Your task to perform on an android device: Open the stopwatch Image 0: 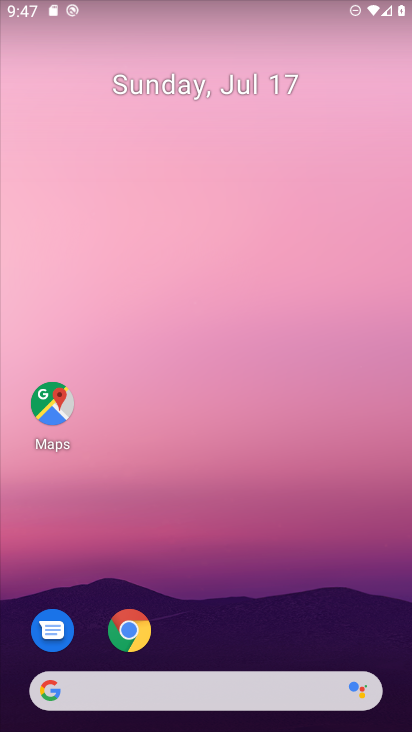
Step 0: drag from (157, 661) to (187, 249)
Your task to perform on an android device: Open the stopwatch Image 1: 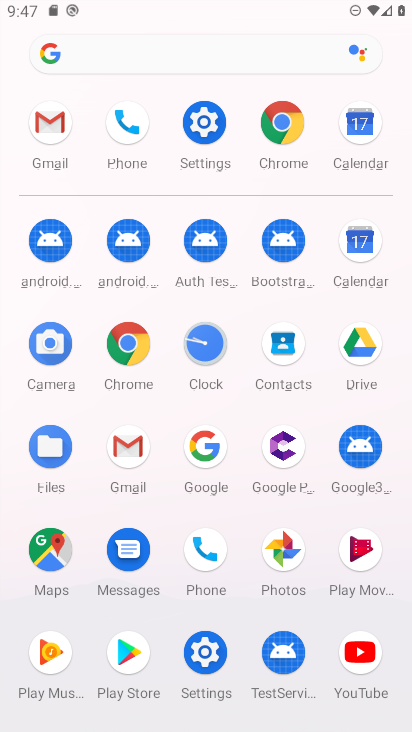
Step 1: click (215, 344)
Your task to perform on an android device: Open the stopwatch Image 2: 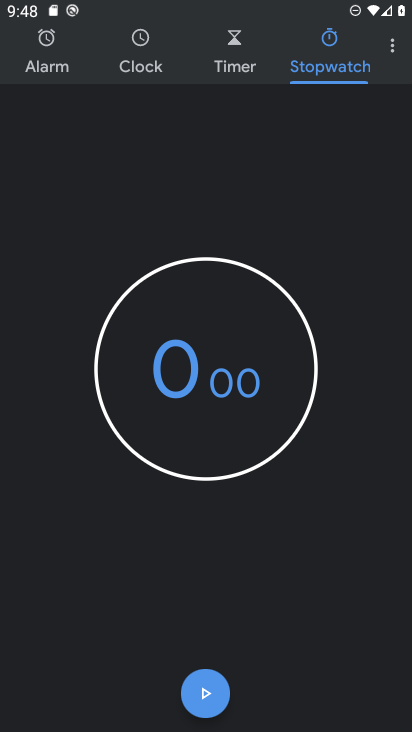
Step 2: task complete